Your task to perform on an android device: change the clock display to digital Image 0: 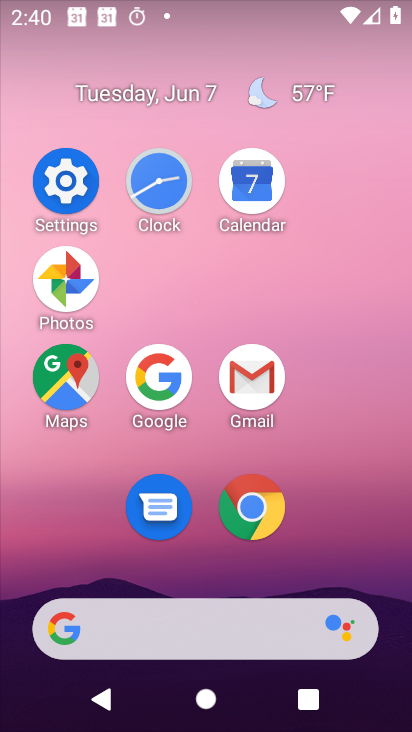
Step 0: click (171, 180)
Your task to perform on an android device: change the clock display to digital Image 1: 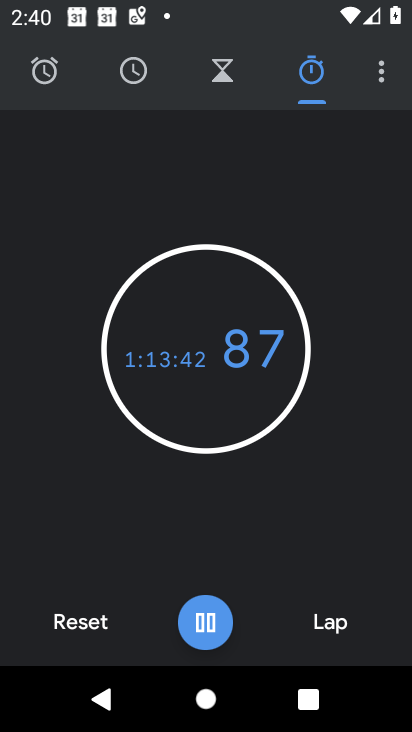
Step 1: click (396, 84)
Your task to perform on an android device: change the clock display to digital Image 2: 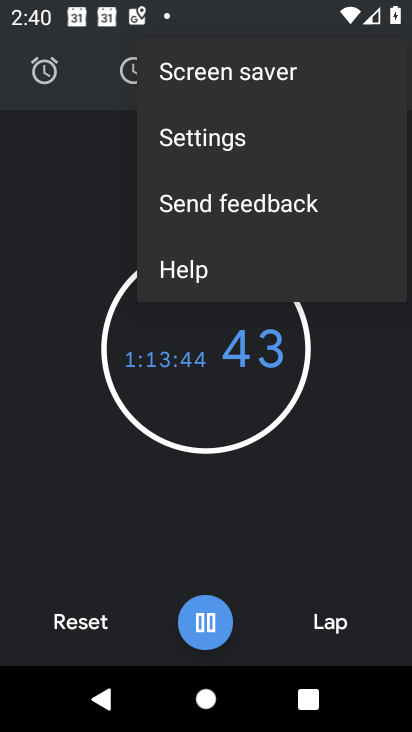
Step 2: click (206, 132)
Your task to perform on an android device: change the clock display to digital Image 3: 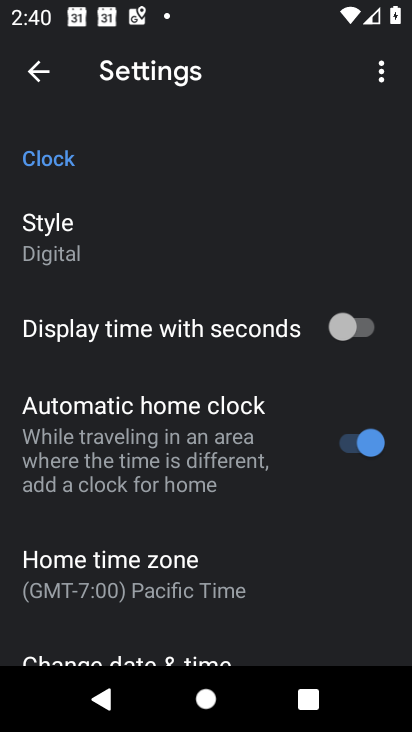
Step 3: task complete